Your task to perform on an android device: change alarm snooze length Image 0: 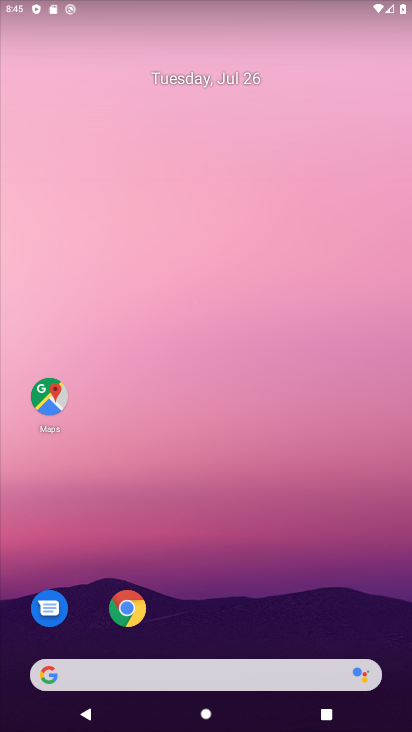
Step 0: drag from (271, 543) to (176, 107)
Your task to perform on an android device: change alarm snooze length Image 1: 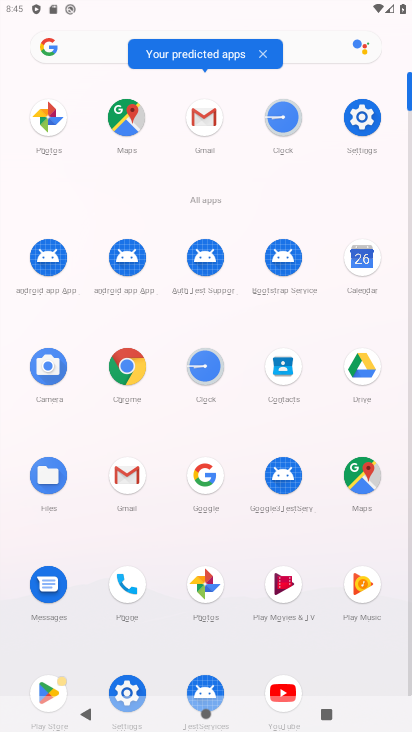
Step 1: click (283, 130)
Your task to perform on an android device: change alarm snooze length Image 2: 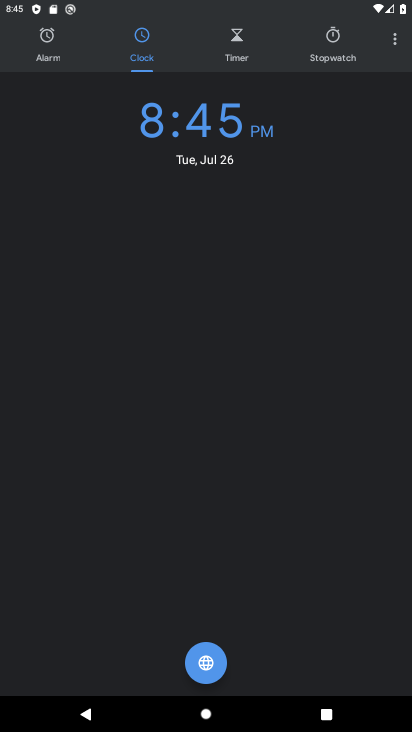
Step 2: click (400, 34)
Your task to perform on an android device: change alarm snooze length Image 3: 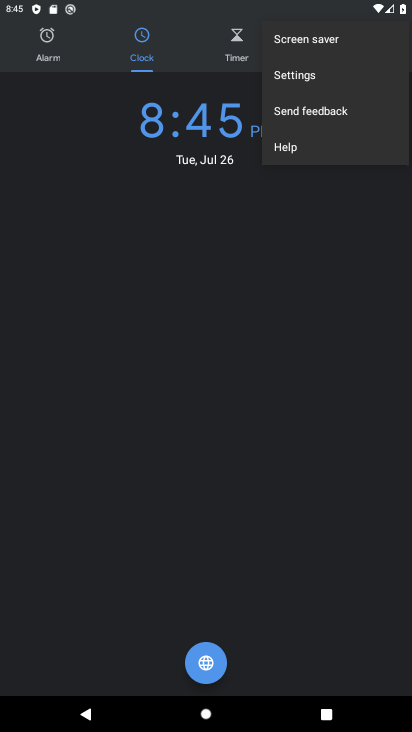
Step 3: click (315, 80)
Your task to perform on an android device: change alarm snooze length Image 4: 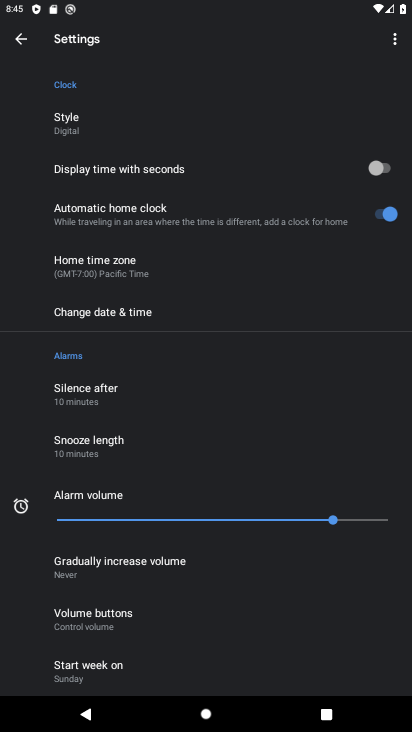
Step 4: click (164, 445)
Your task to perform on an android device: change alarm snooze length Image 5: 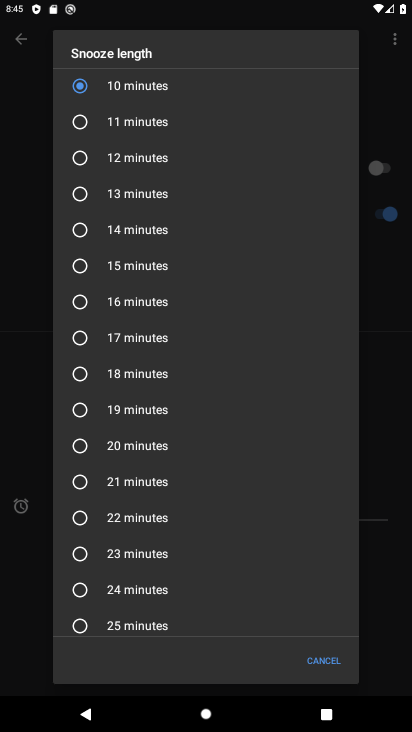
Step 5: click (129, 450)
Your task to perform on an android device: change alarm snooze length Image 6: 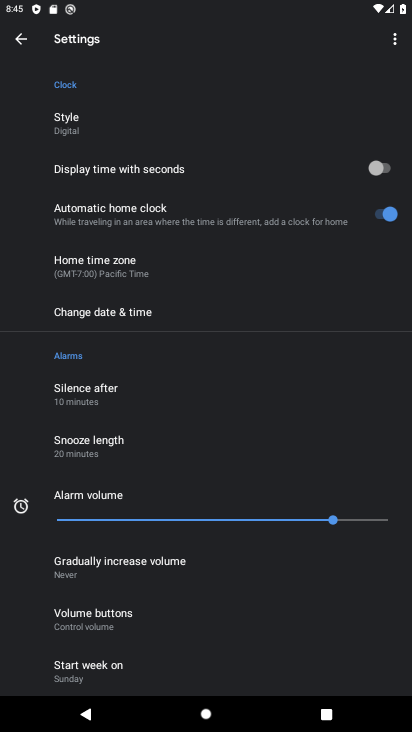
Step 6: task complete